Your task to perform on an android device: choose inbox layout in the gmail app Image 0: 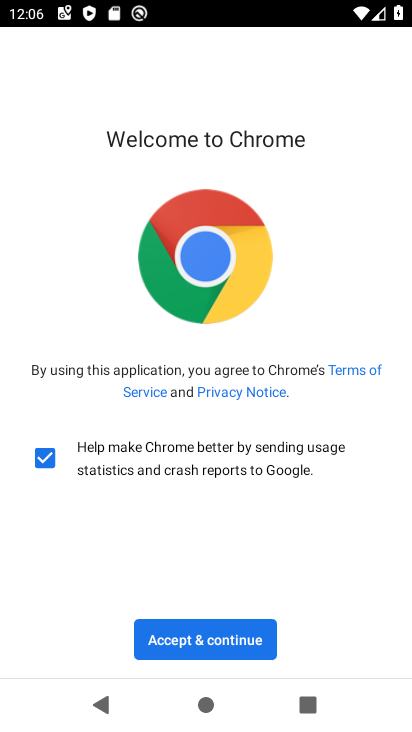
Step 0: press home button
Your task to perform on an android device: choose inbox layout in the gmail app Image 1: 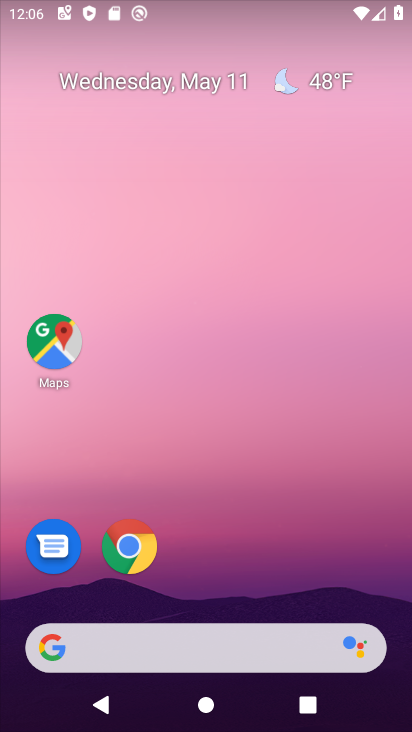
Step 1: drag from (205, 622) to (351, 103)
Your task to perform on an android device: choose inbox layout in the gmail app Image 2: 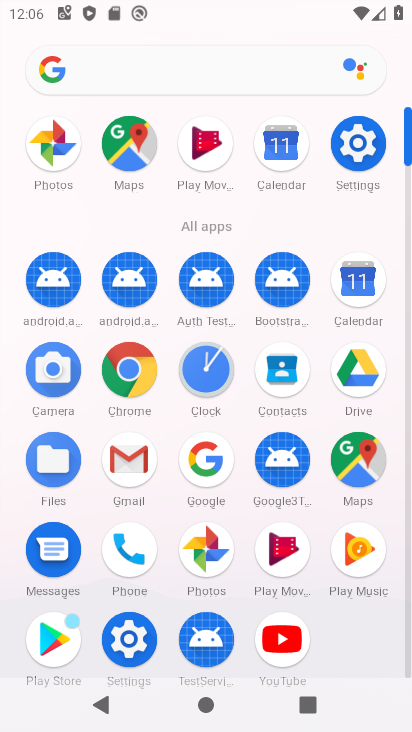
Step 2: click (136, 465)
Your task to perform on an android device: choose inbox layout in the gmail app Image 3: 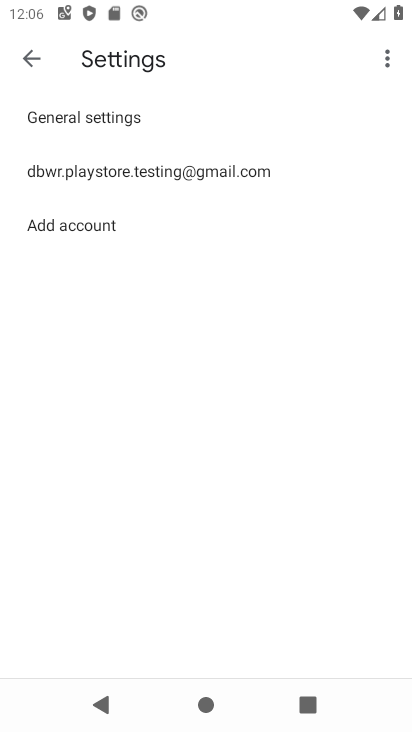
Step 3: click (101, 175)
Your task to perform on an android device: choose inbox layout in the gmail app Image 4: 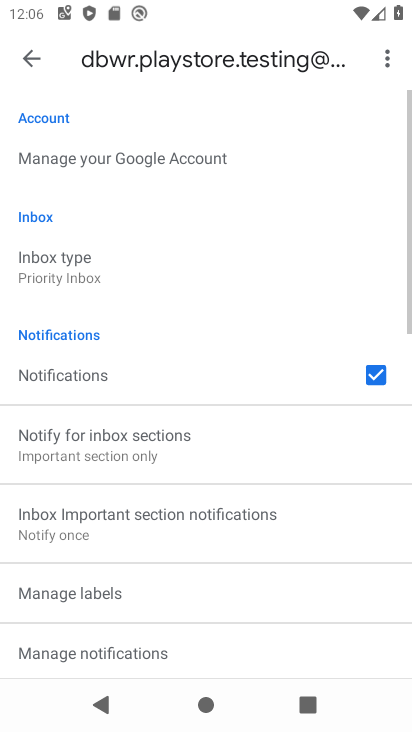
Step 4: click (58, 264)
Your task to perform on an android device: choose inbox layout in the gmail app Image 5: 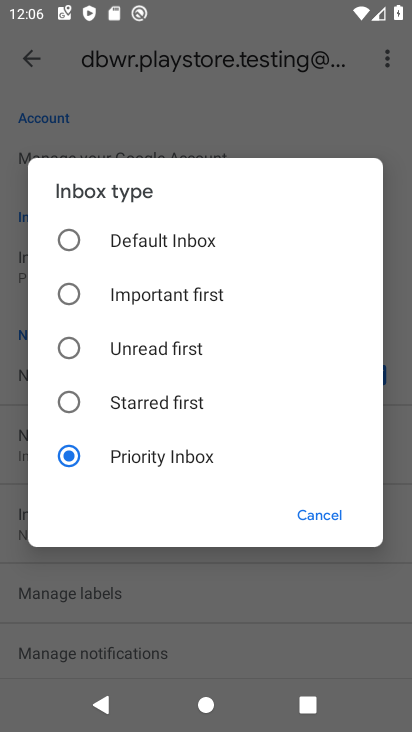
Step 5: click (76, 242)
Your task to perform on an android device: choose inbox layout in the gmail app Image 6: 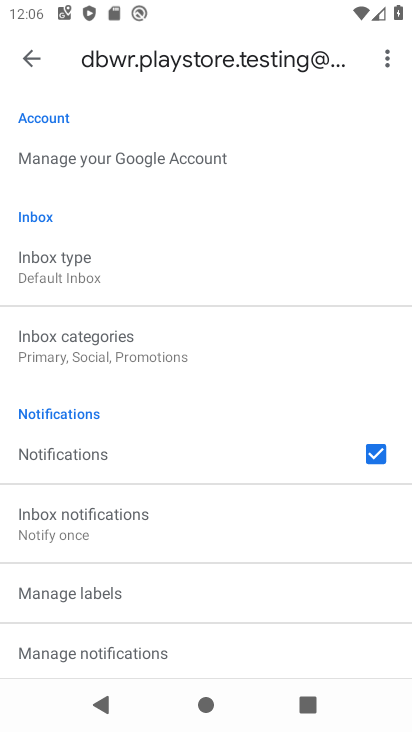
Step 6: task complete